Your task to perform on an android device: Search for seafood restaurants on Google Maps Image 0: 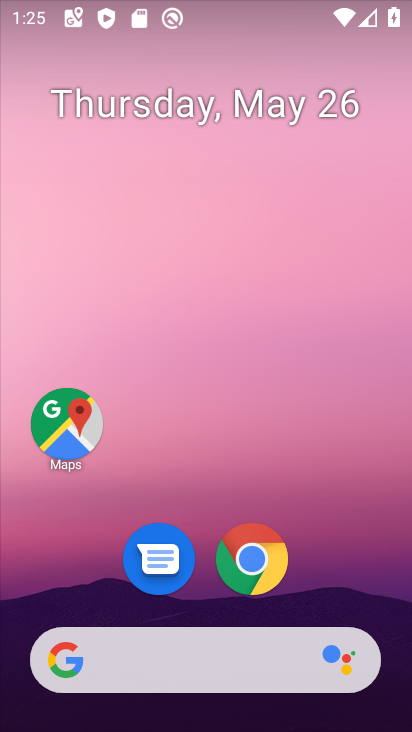
Step 0: press home button
Your task to perform on an android device: Search for seafood restaurants on Google Maps Image 1: 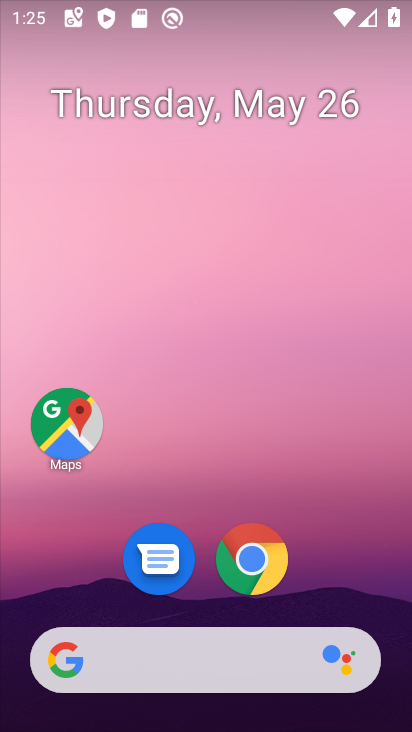
Step 1: click (64, 422)
Your task to perform on an android device: Search for seafood restaurants on Google Maps Image 2: 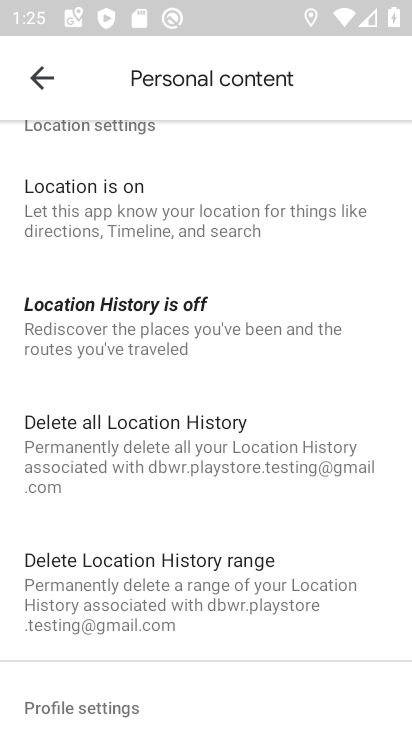
Step 2: click (39, 77)
Your task to perform on an android device: Search for seafood restaurants on Google Maps Image 3: 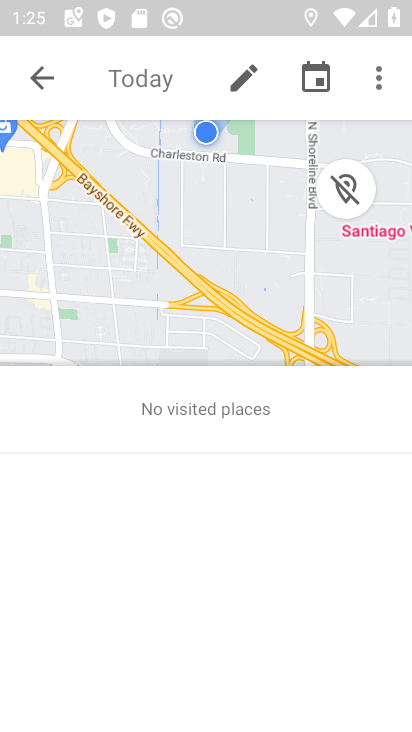
Step 3: click (39, 78)
Your task to perform on an android device: Search for seafood restaurants on Google Maps Image 4: 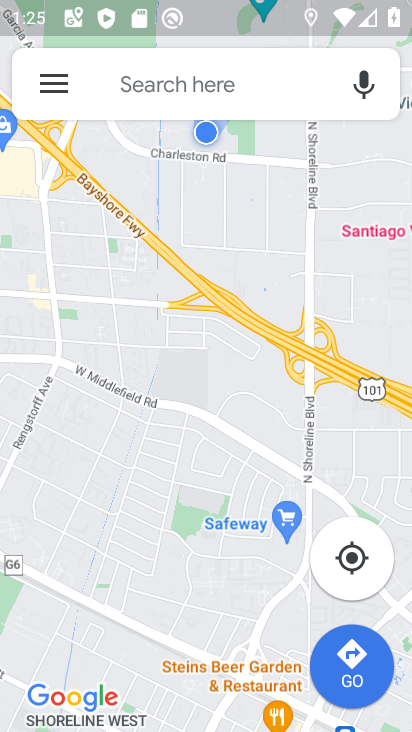
Step 4: click (170, 77)
Your task to perform on an android device: Search for seafood restaurants on Google Maps Image 5: 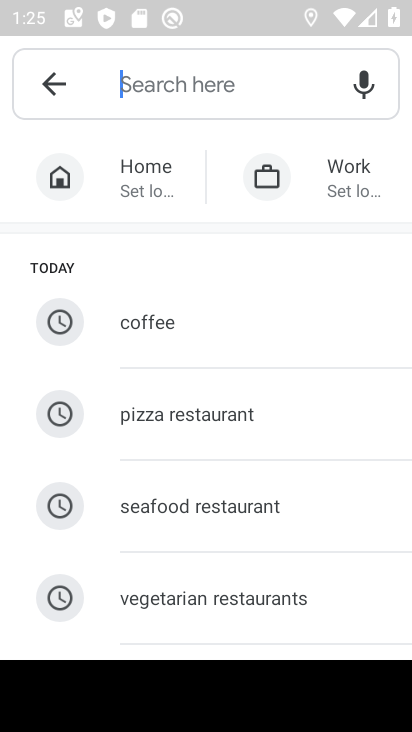
Step 5: click (210, 508)
Your task to perform on an android device: Search for seafood restaurants on Google Maps Image 6: 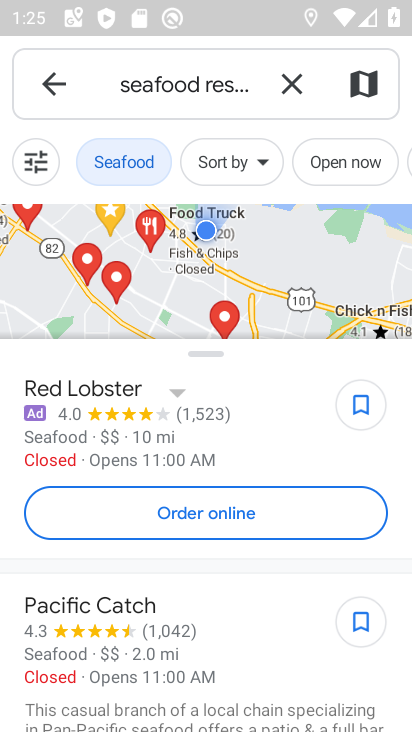
Step 6: task complete